Your task to perform on an android device: Go to network settings Image 0: 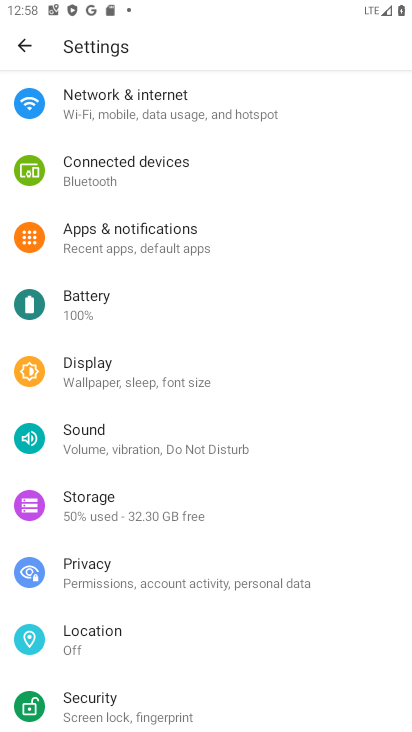
Step 0: press home button
Your task to perform on an android device: Go to network settings Image 1: 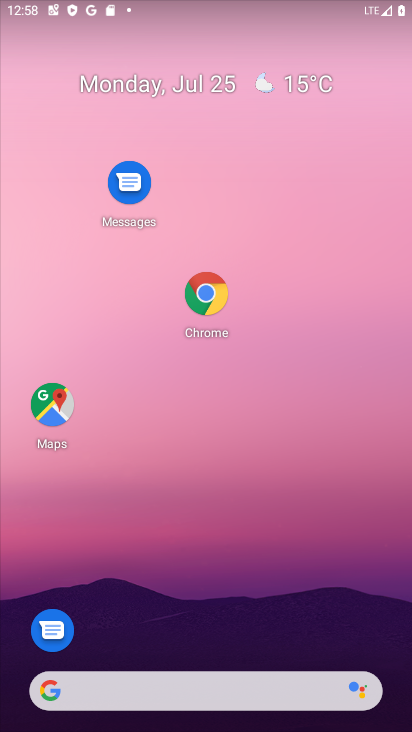
Step 1: drag from (333, 529) to (371, 108)
Your task to perform on an android device: Go to network settings Image 2: 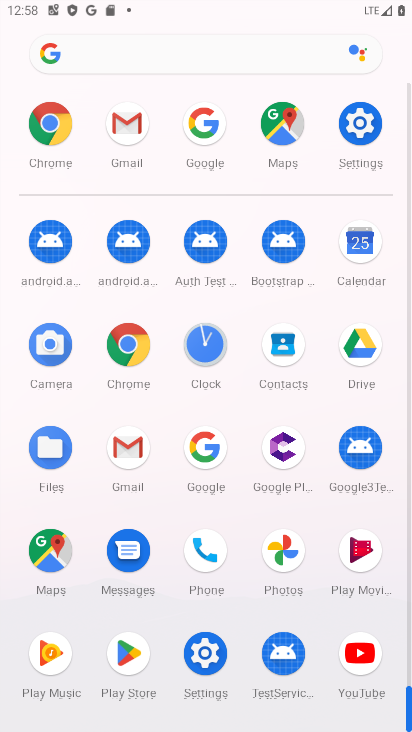
Step 2: click (197, 654)
Your task to perform on an android device: Go to network settings Image 3: 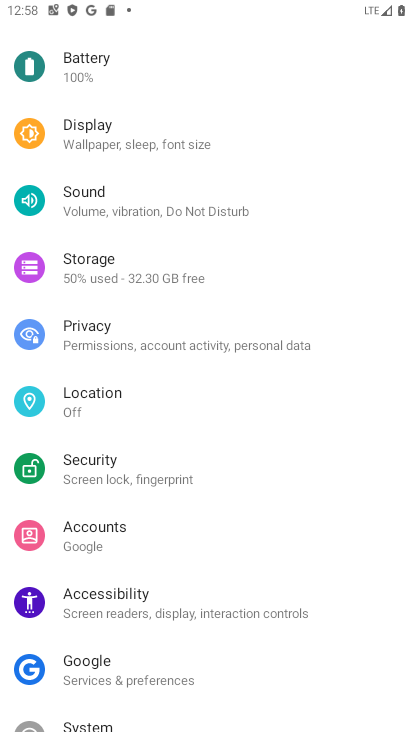
Step 3: drag from (245, 192) to (232, 716)
Your task to perform on an android device: Go to network settings Image 4: 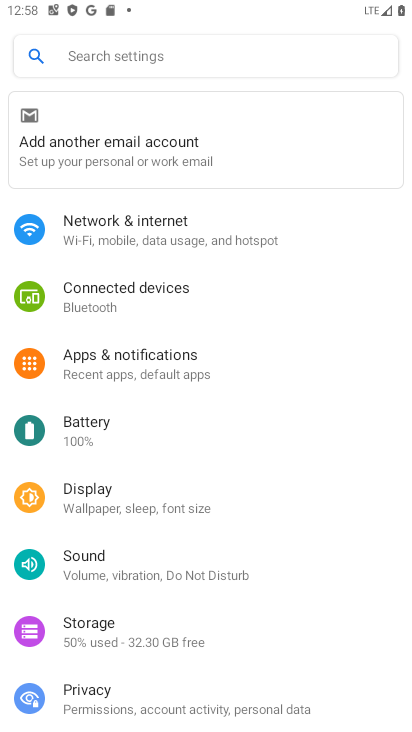
Step 4: click (135, 231)
Your task to perform on an android device: Go to network settings Image 5: 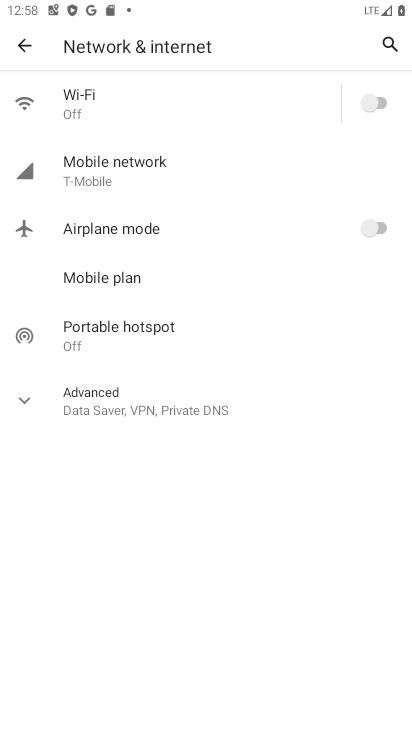
Step 5: task complete